Your task to perform on an android device: What's the weather going to be this weekend? Image 0: 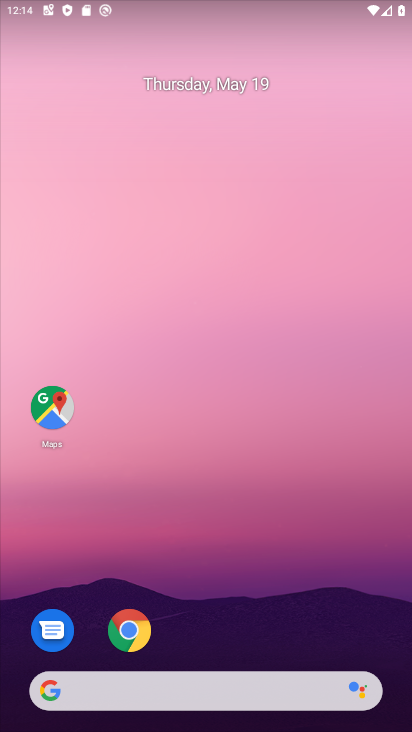
Step 0: drag from (212, 661) to (208, 154)
Your task to perform on an android device: What's the weather going to be this weekend? Image 1: 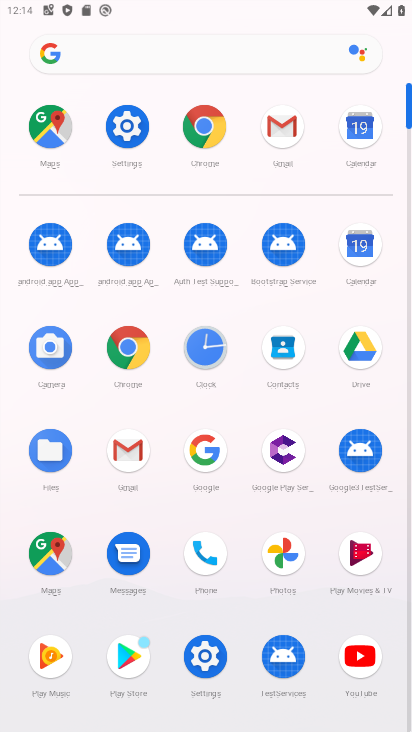
Step 1: click (141, 45)
Your task to perform on an android device: What's the weather going to be this weekend? Image 2: 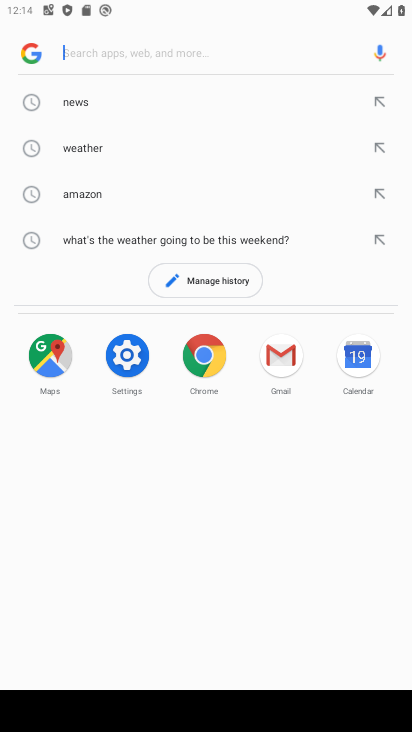
Step 2: type "weather going to be this weekend?"
Your task to perform on an android device: What's the weather going to be this weekend? Image 3: 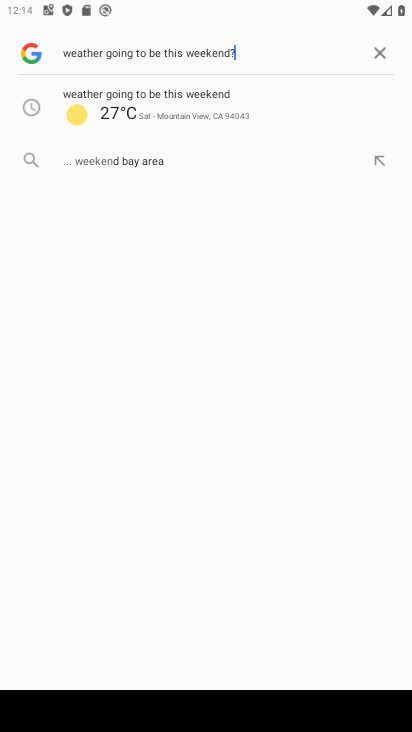
Step 3: type ""
Your task to perform on an android device: What's the weather going to be this weekend? Image 4: 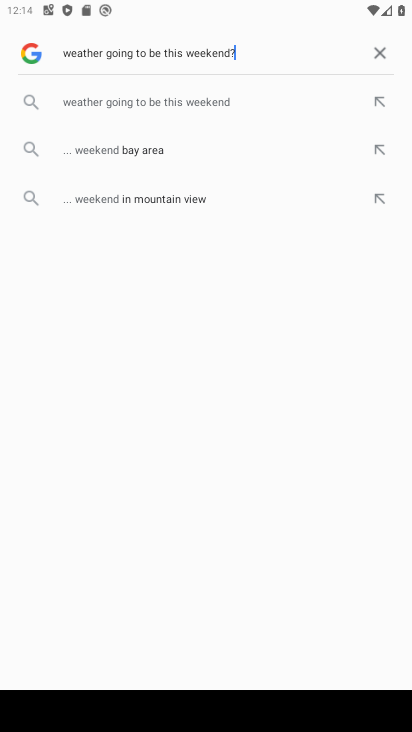
Step 4: click (105, 100)
Your task to perform on an android device: What's the weather going to be this weekend? Image 5: 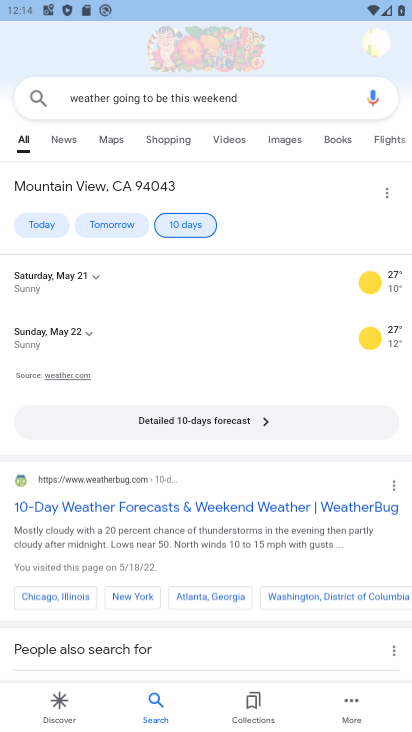
Step 5: task complete